Your task to perform on an android device: Open sound settings Image 0: 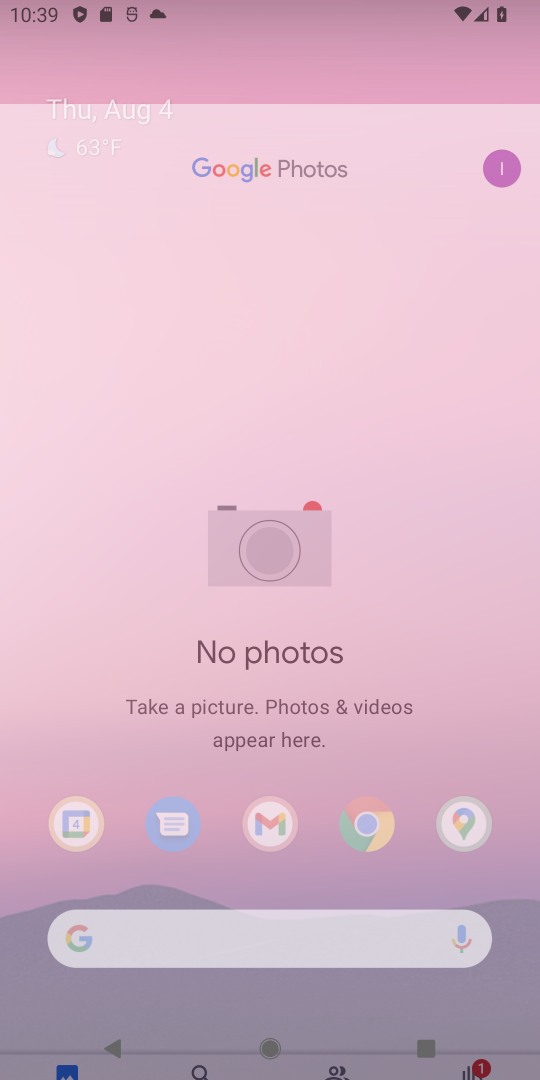
Step 0: press home button
Your task to perform on an android device: Open sound settings Image 1: 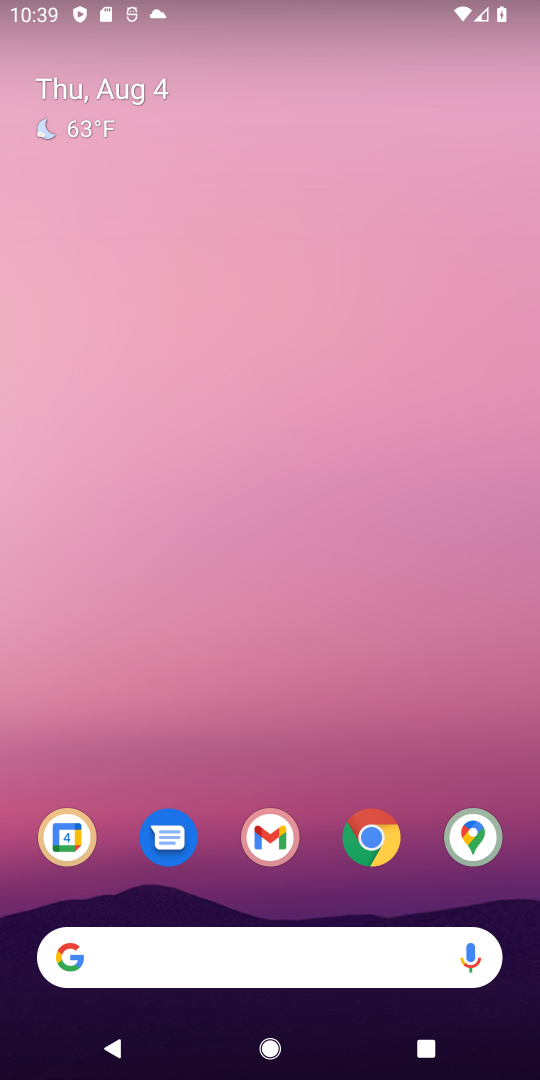
Step 1: drag from (319, 895) to (401, 71)
Your task to perform on an android device: Open sound settings Image 2: 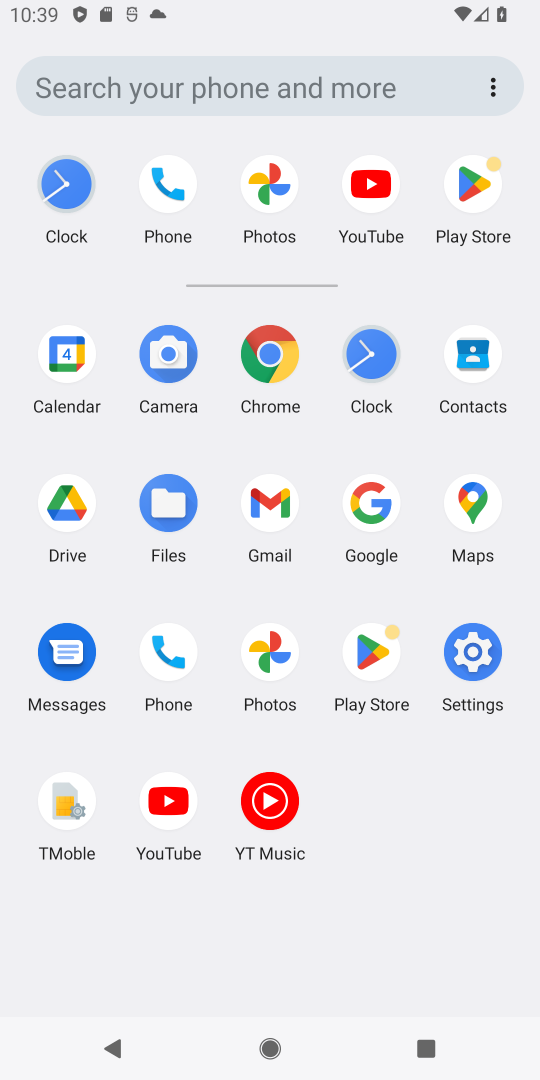
Step 2: click (470, 647)
Your task to perform on an android device: Open sound settings Image 3: 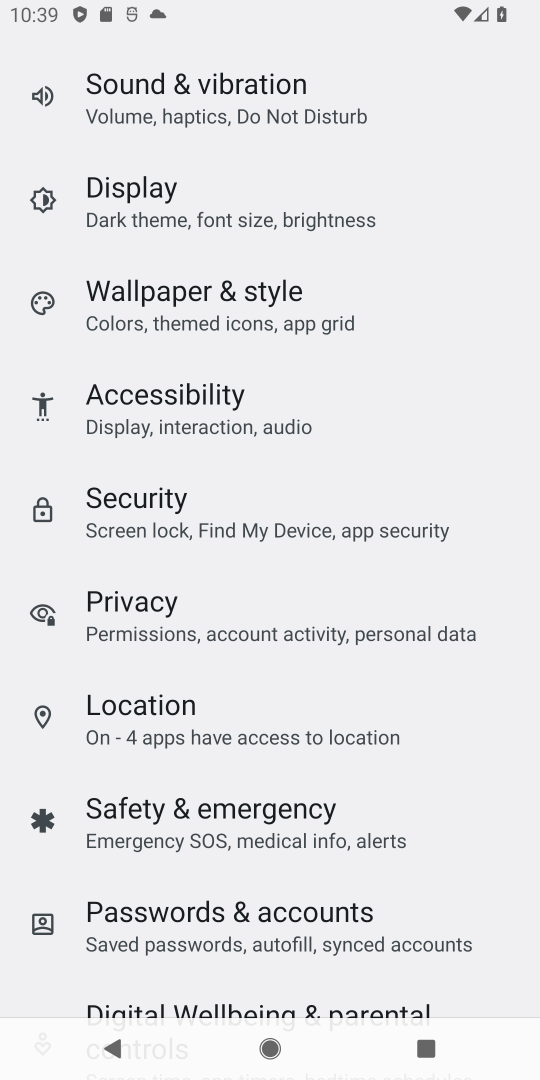
Step 3: click (200, 97)
Your task to perform on an android device: Open sound settings Image 4: 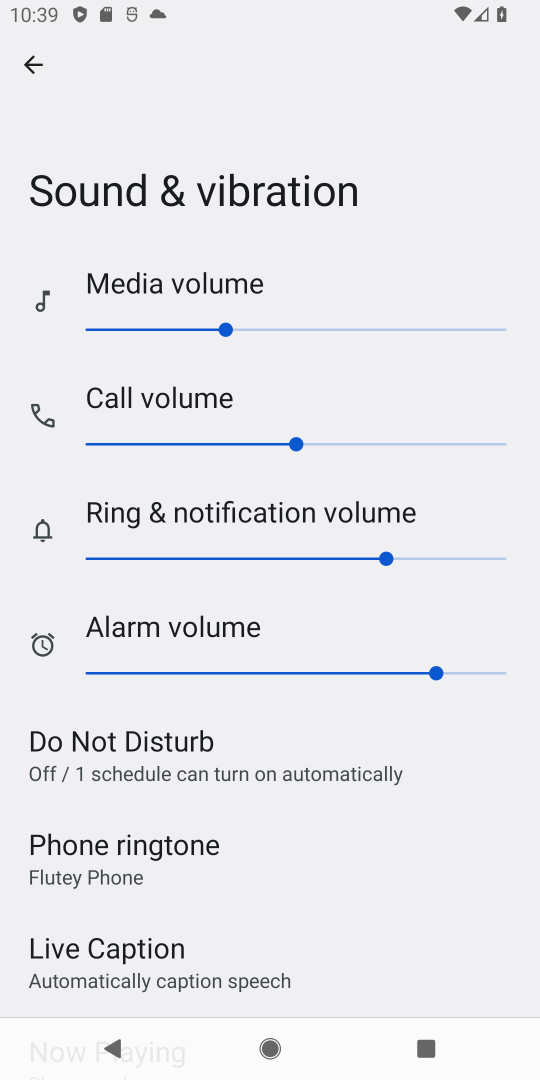
Step 4: task complete